Your task to perform on an android device: Open the map Image 0: 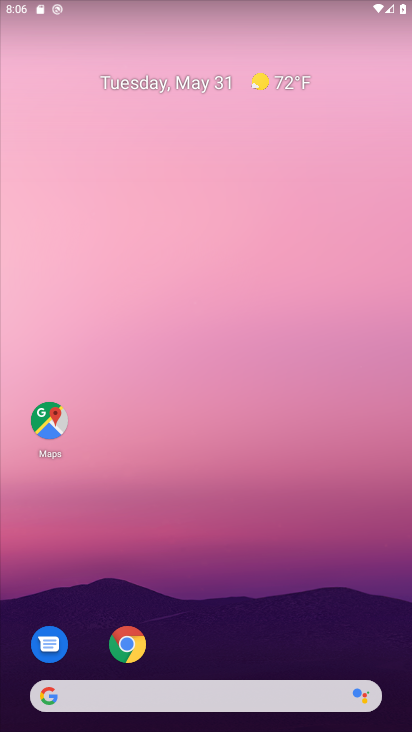
Step 0: press home button
Your task to perform on an android device: Open the map Image 1: 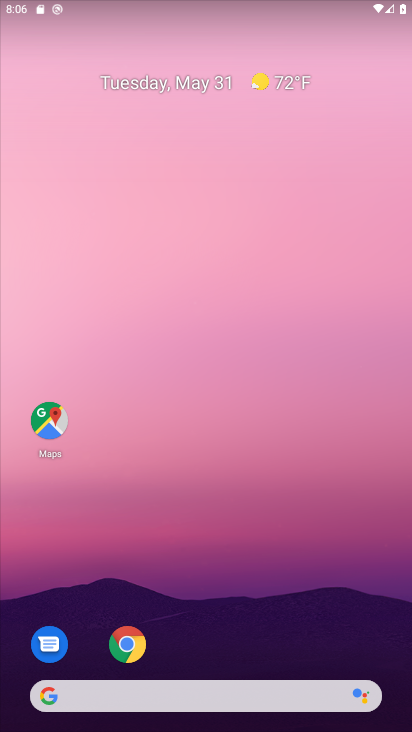
Step 1: click (47, 413)
Your task to perform on an android device: Open the map Image 2: 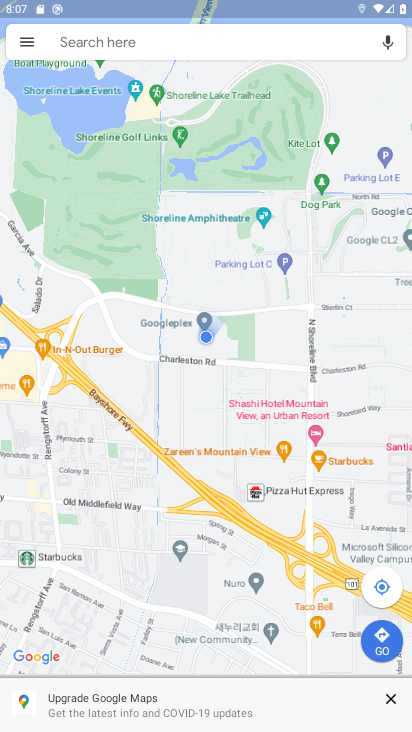
Step 2: task complete